Your task to perform on an android device: add a contact in the contacts app Image 0: 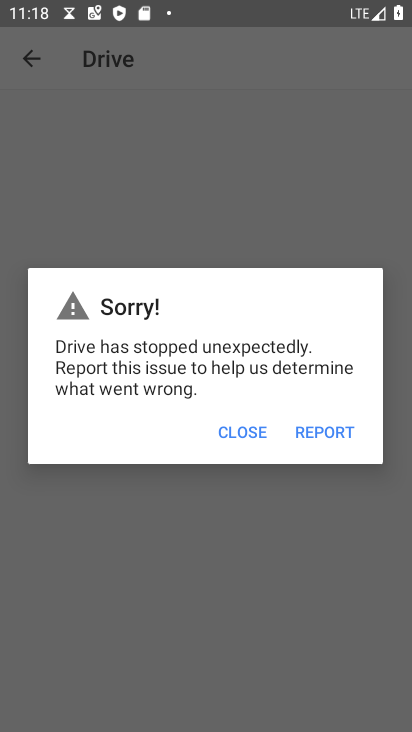
Step 0: press home button
Your task to perform on an android device: add a contact in the contacts app Image 1: 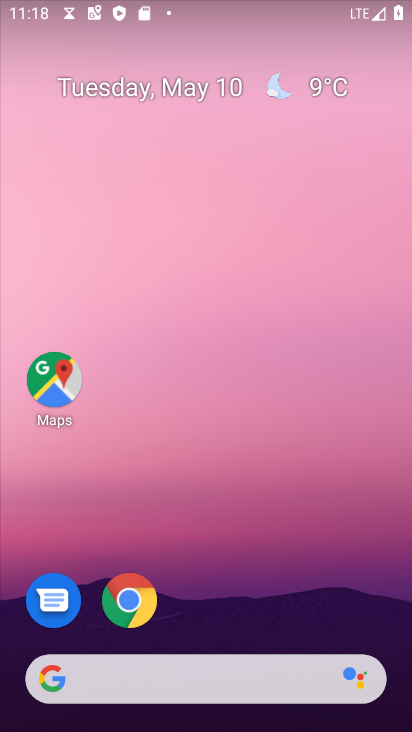
Step 1: click (128, 608)
Your task to perform on an android device: add a contact in the contacts app Image 2: 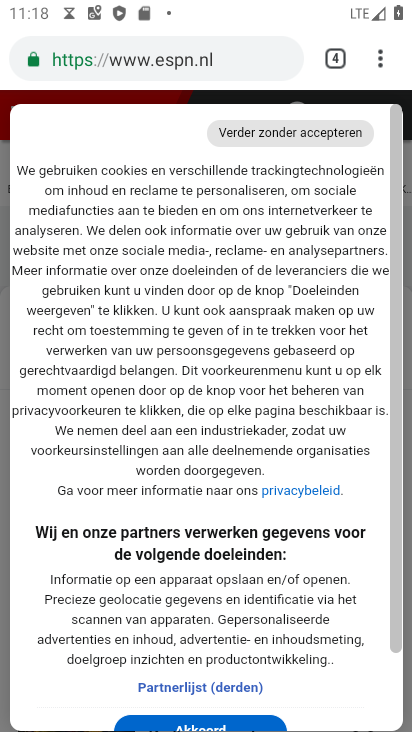
Step 2: click (381, 56)
Your task to perform on an android device: add a contact in the contacts app Image 3: 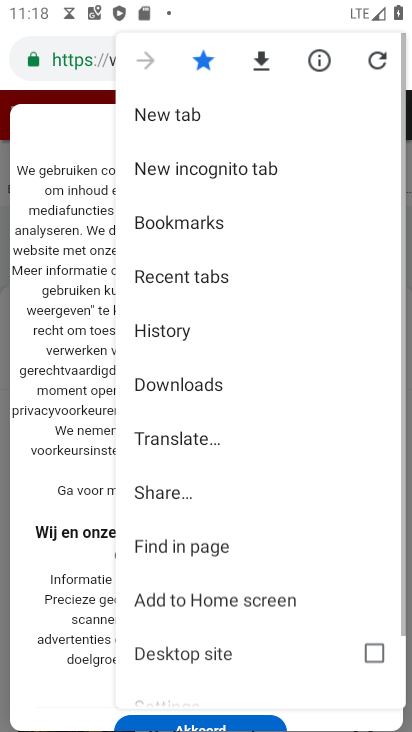
Step 3: press home button
Your task to perform on an android device: add a contact in the contacts app Image 4: 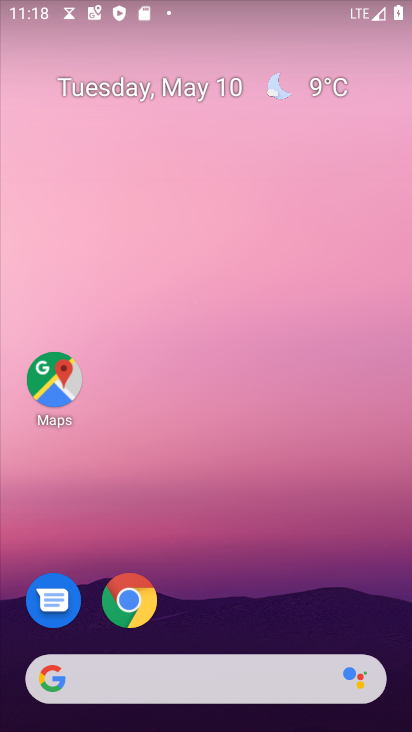
Step 4: drag from (286, 567) to (191, 103)
Your task to perform on an android device: add a contact in the contacts app Image 5: 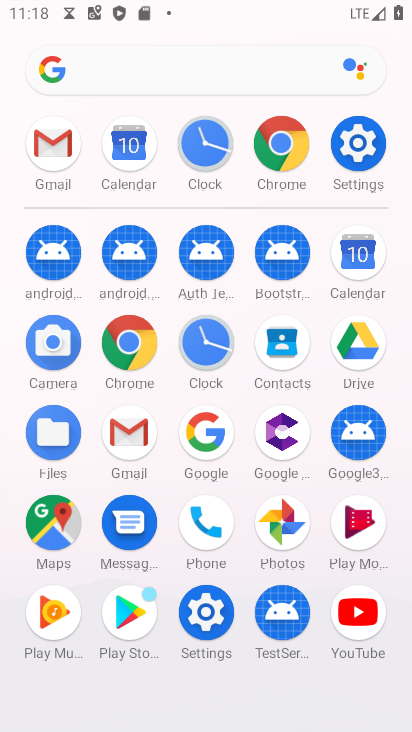
Step 5: click (280, 334)
Your task to perform on an android device: add a contact in the contacts app Image 6: 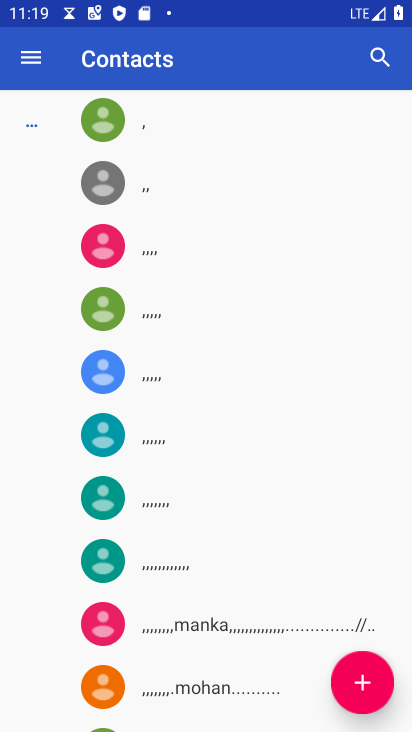
Step 6: click (371, 689)
Your task to perform on an android device: add a contact in the contacts app Image 7: 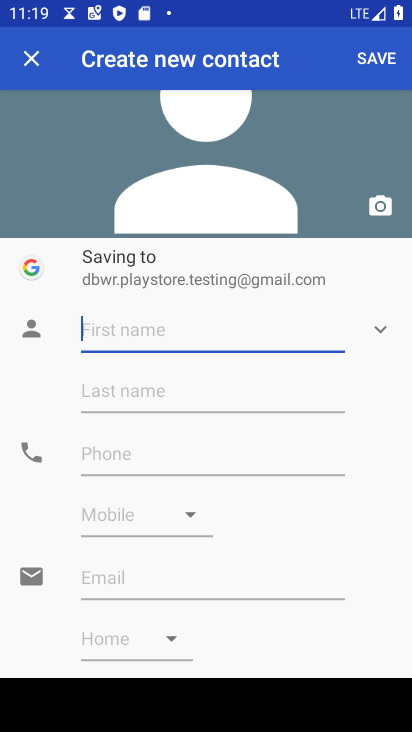
Step 7: type "fgsdfgs"
Your task to perform on an android device: add a contact in the contacts app Image 8: 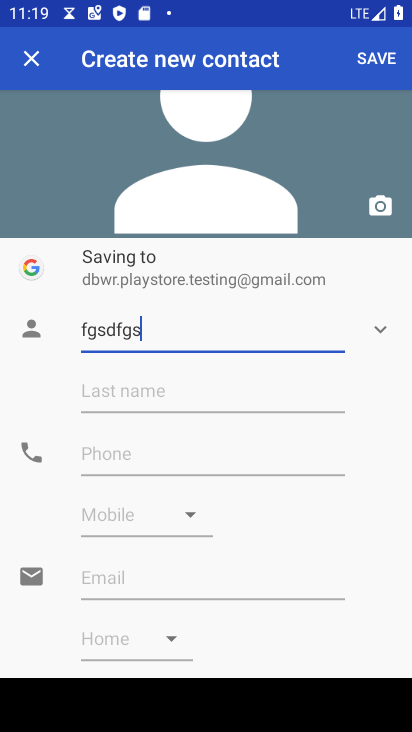
Step 8: type ""
Your task to perform on an android device: add a contact in the contacts app Image 9: 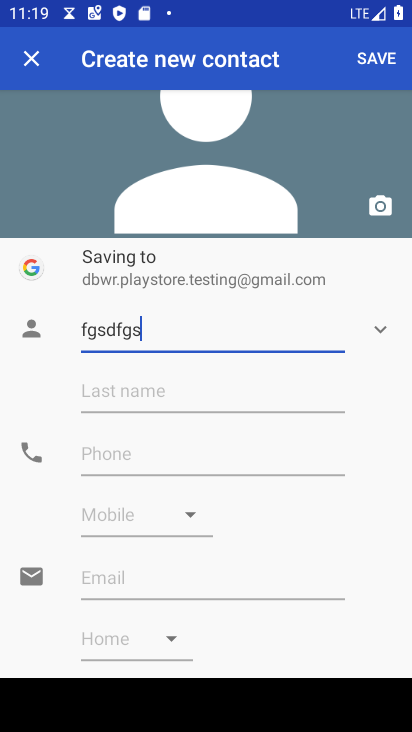
Step 9: click (245, 390)
Your task to perform on an android device: add a contact in the contacts app Image 10: 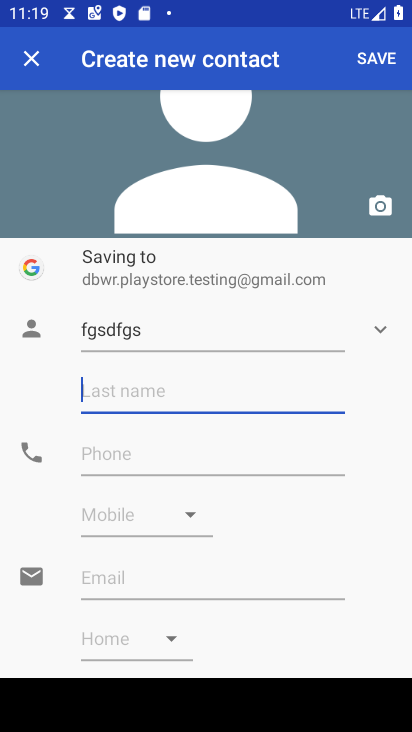
Step 10: type "fgsdfg"
Your task to perform on an android device: add a contact in the contacts app Image 11: 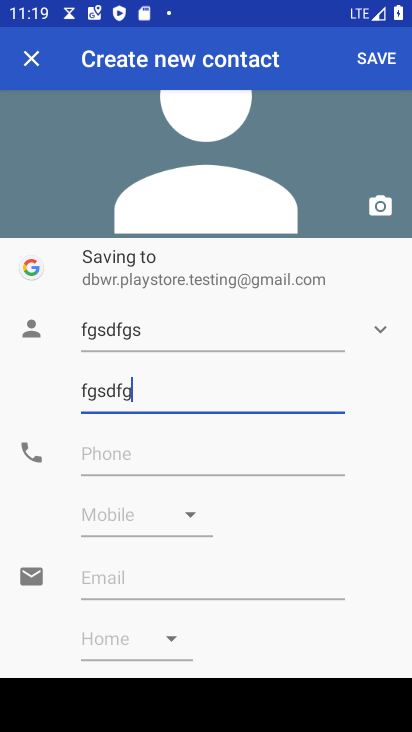
Step 11: type ""
Your task to perform on an android device: add a contact in the contacts app Image 12: 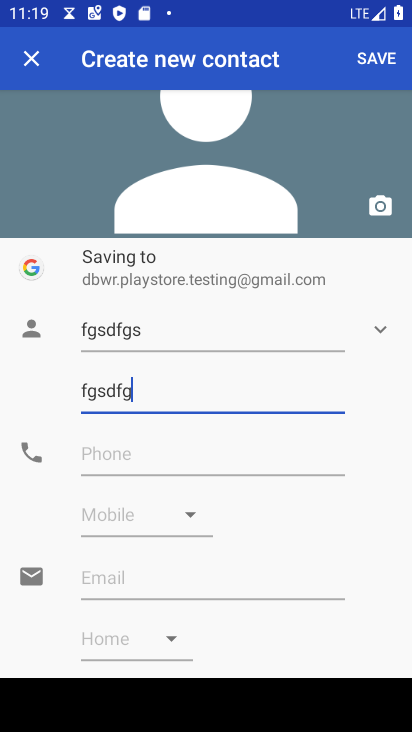
Step 12: click (246, 453)
Your task to perform on an android device: add a contact in the contacts app Image 13: 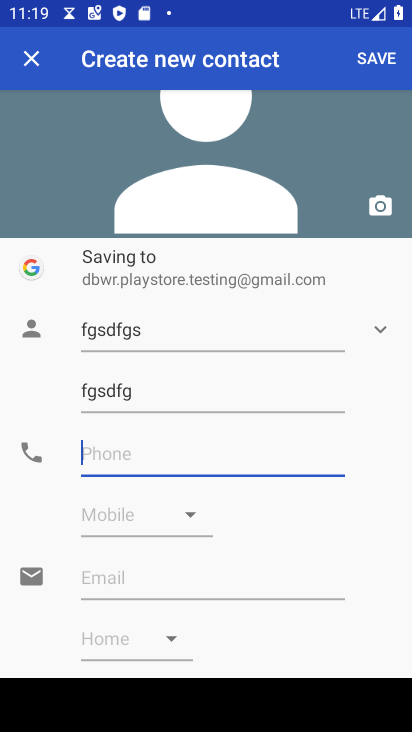
Step 13: type "45634563456"
Your task to perform on an android device: add a contact in the contacts app Image 14: 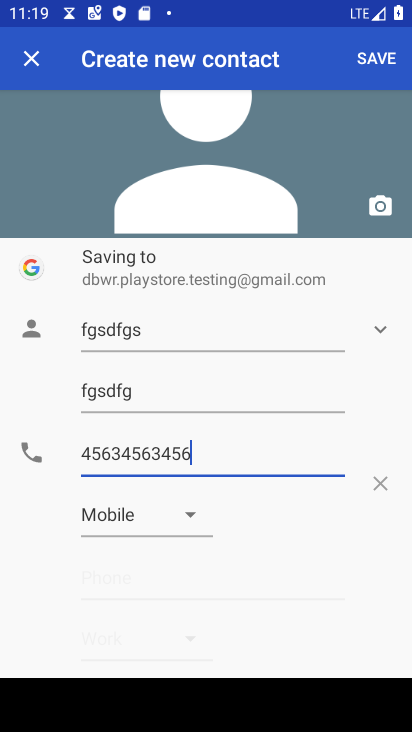
Step 14: type ""
Your task to perform on an android device: add a contact in the contacts app Image 15: 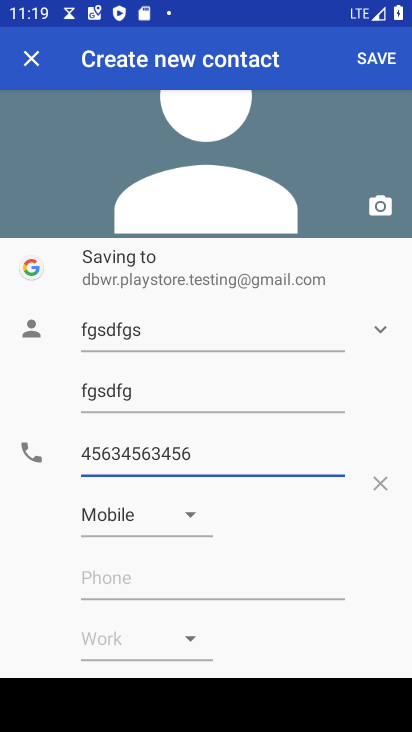
Step 15: click (370, 40)
Your task to perform on an android device: add a contact in the contacts app Image 16: 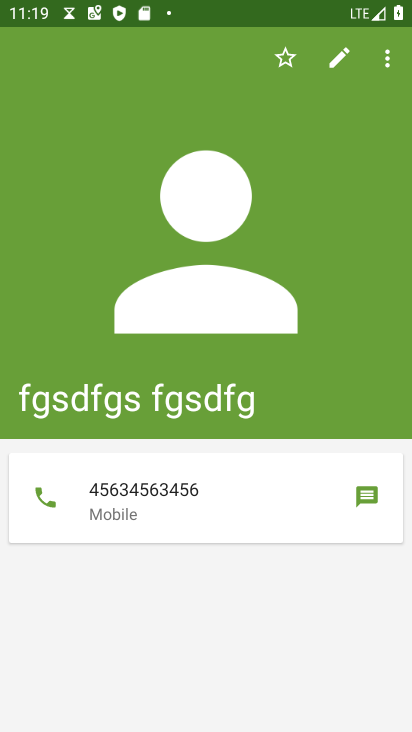
Step 16: task complete